Your task to perform on an android device: Add macbook to the cart on costco.com Image 0: 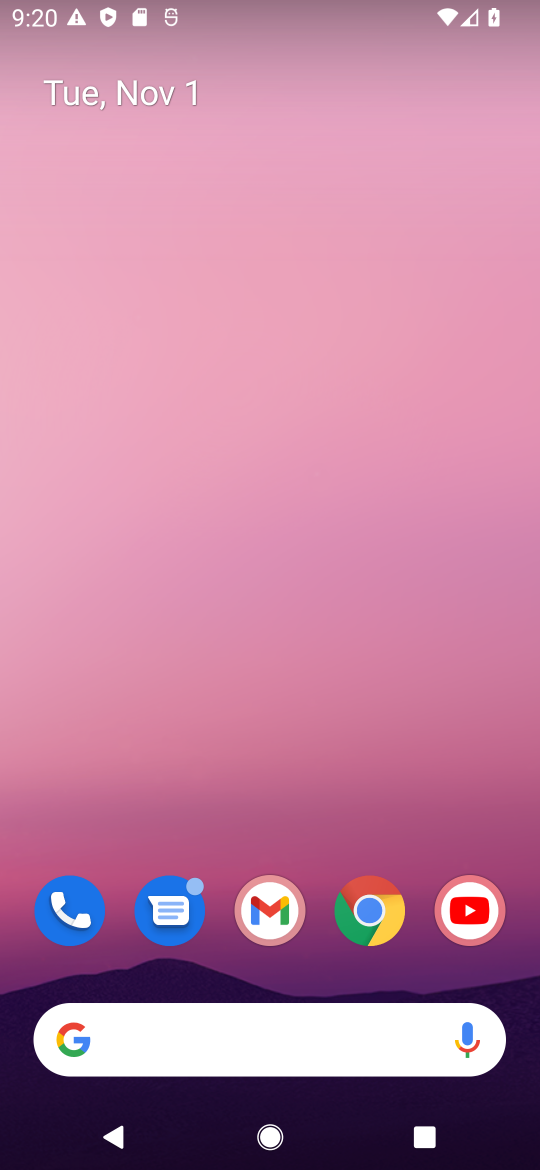
Step 0: click (374, 923)
Your task to perform on an android device: Add macbook to the cart on costco.com Image 1: 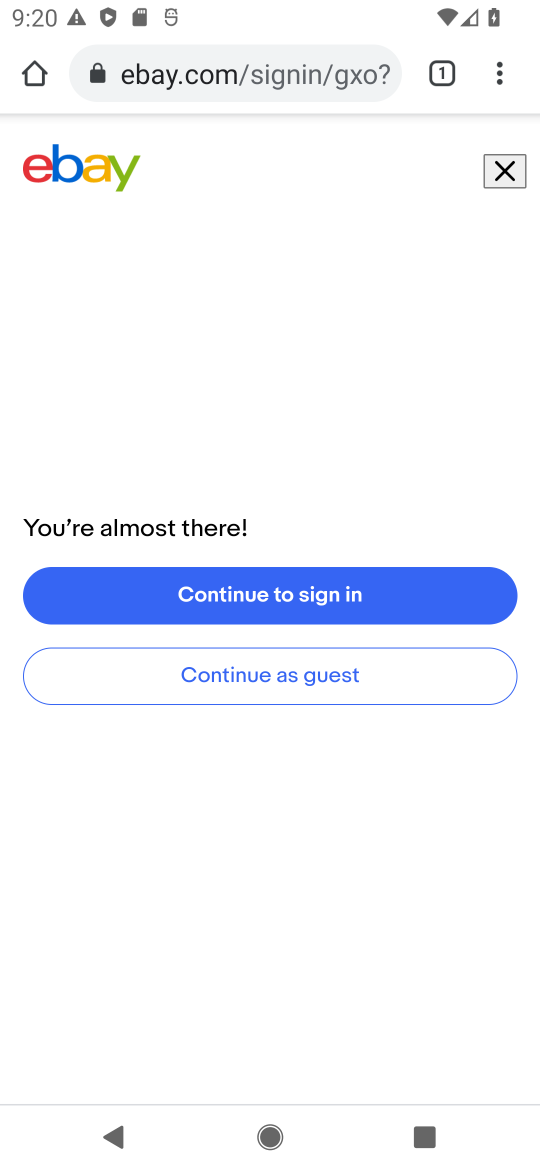
Step 1: click (244, 70)
Your task to perform on an android device: Add macbook to the cart on costco.com Image 2: 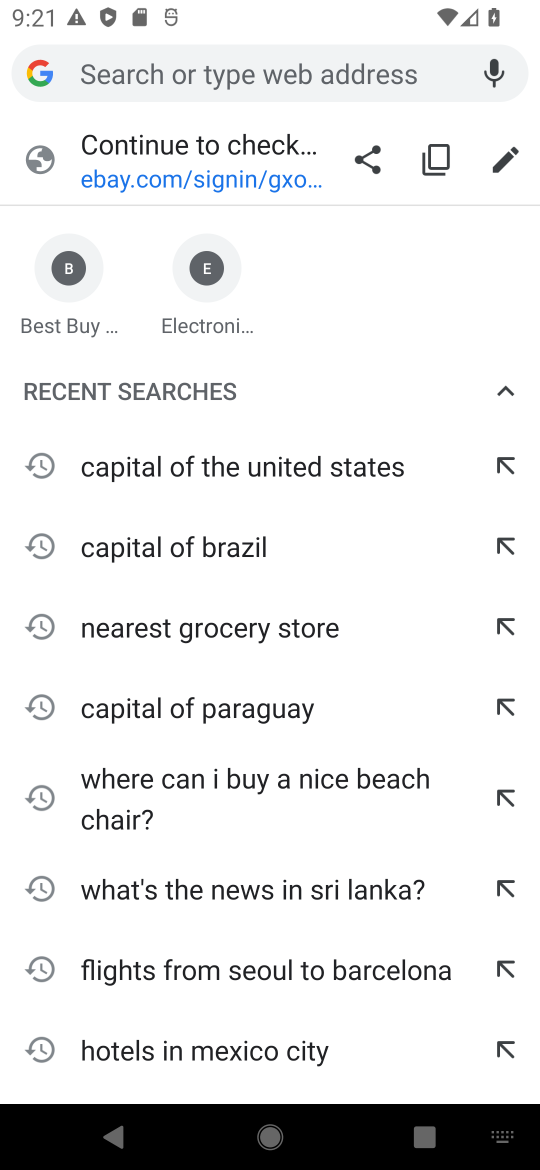
Step 2: type "costco.com"
Your task to perform on an android device: Add macbook to the cart on costco.com Image 3: 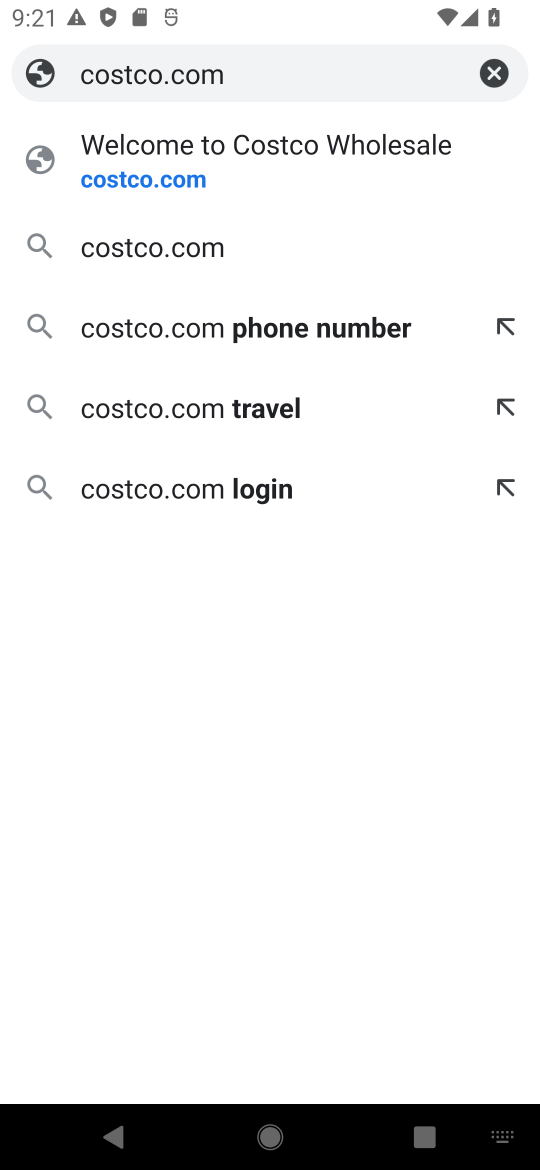
Step 3: click (127, 192)
Your task to perform on an android device: Add macbook to the cart on costco.com Image 4: 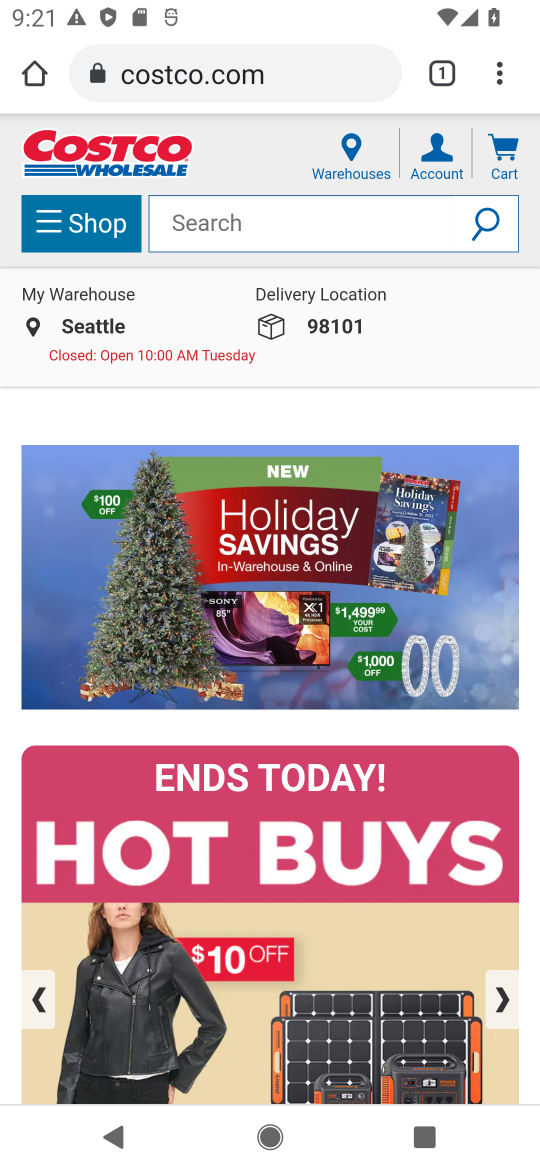
Step 4: click (216, 229)
Your task to perform on an android device: Add macbook to the cart on costco.com Image 5: 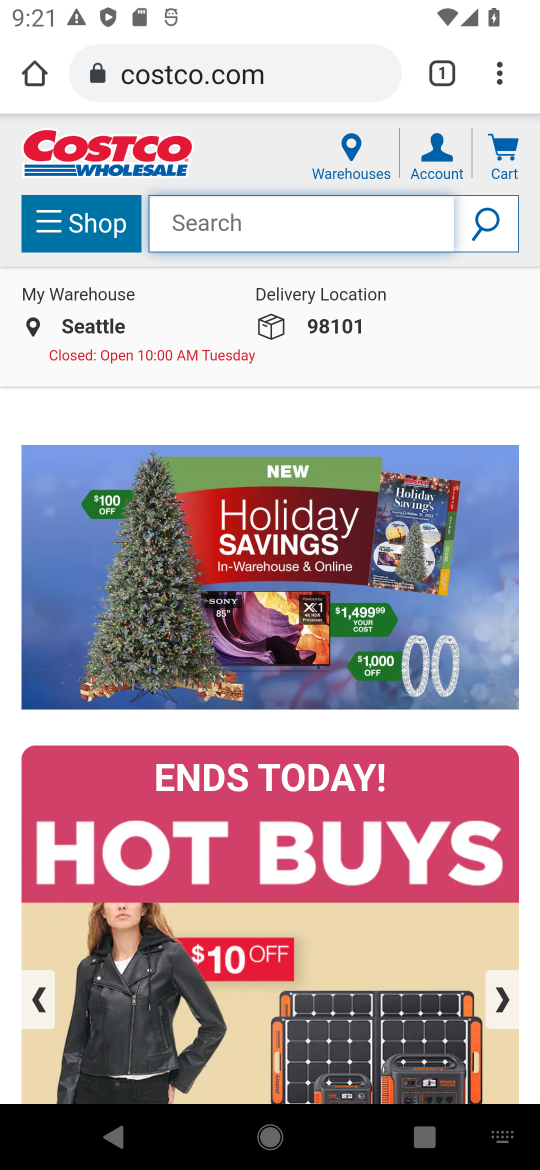
Step 5: type "macbook"
Your task to perform on an android device: Add macbook to the cart on costco.com Image 6: 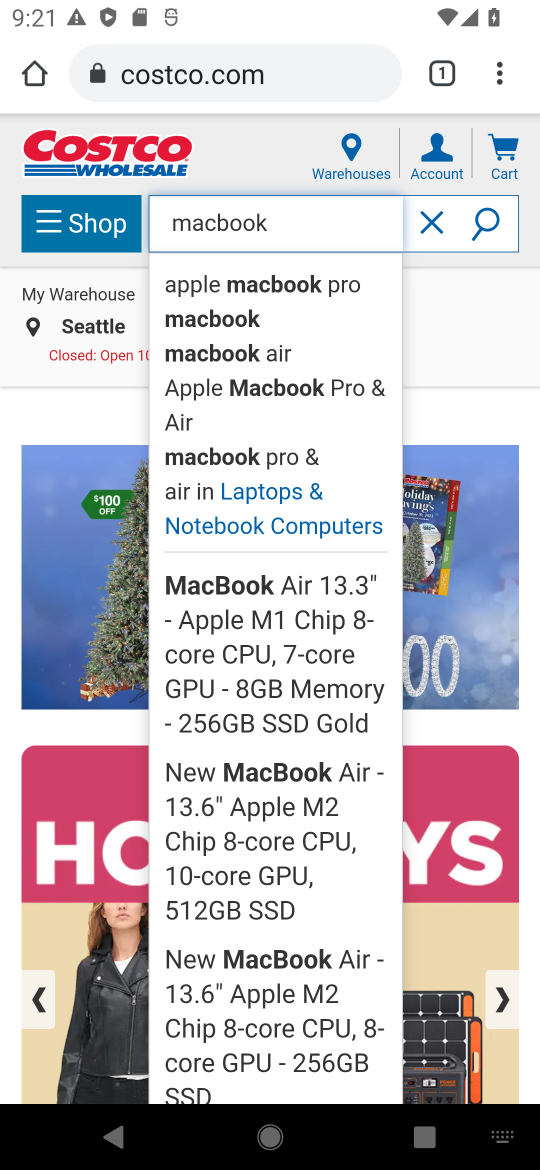
Step 6: click (477, 224)
Your task to perform on an android device: Add macbook to the cart on costco.com Image 7: 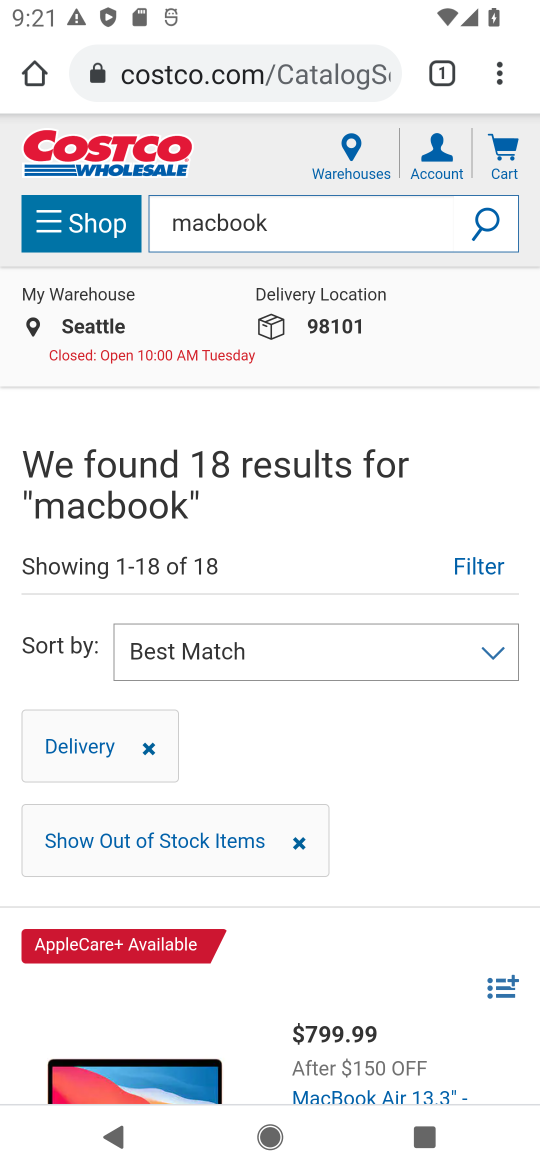
Step 7: drag from (342, 881) to (348, 456)
Your task to perform on an android device: Add macbook to the cart on costco.com Image 8: 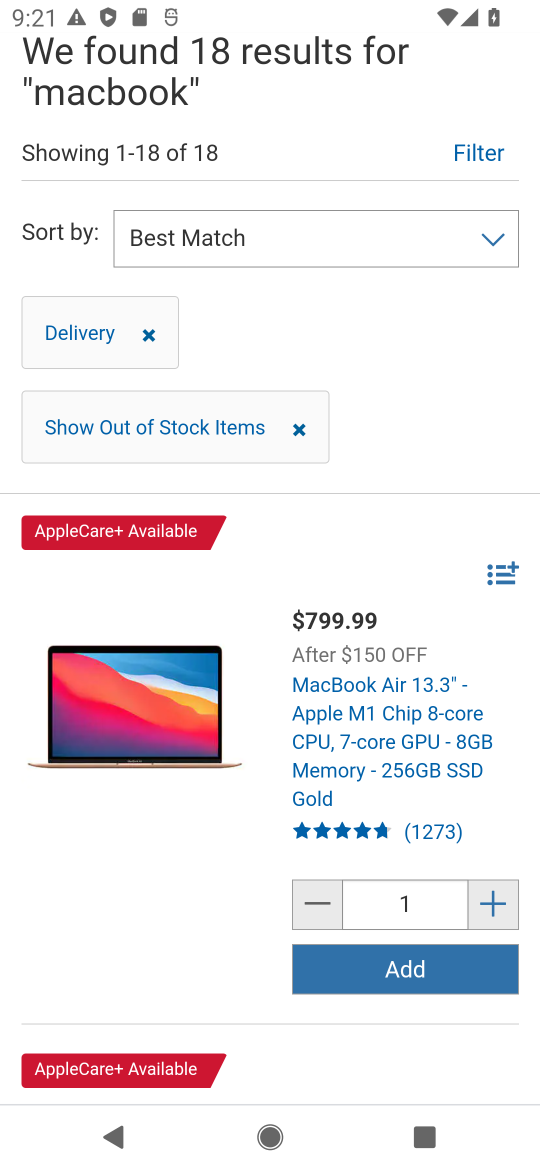
Step 8: click (390, 983)
Your task to perform on an android device: Add macbook to the cart on costco.com Image 9: 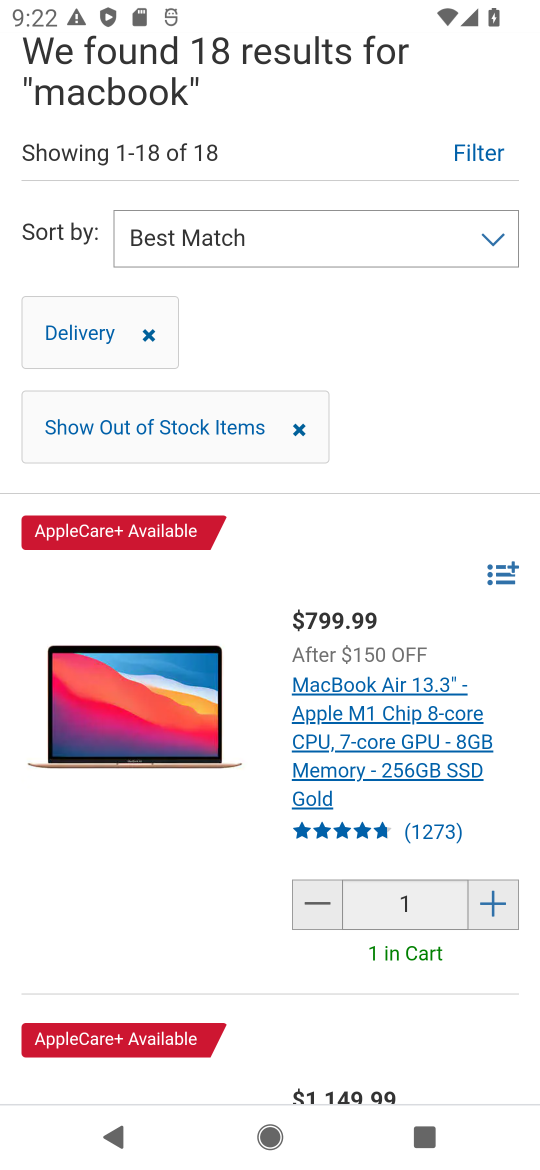
Step 9: task complete